Your task to perform on an android device: toggle improve location accuracy Image 0: 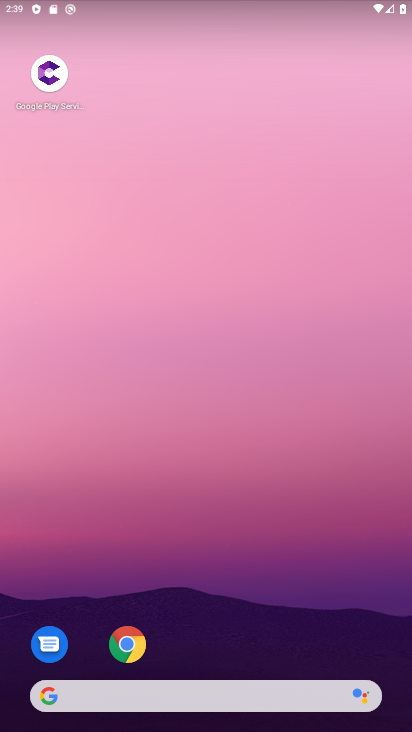
Step 0: drag from (158, 668) to (290, 136)
Your task to perform on an android device: toggle improve location accuracy Image 1: 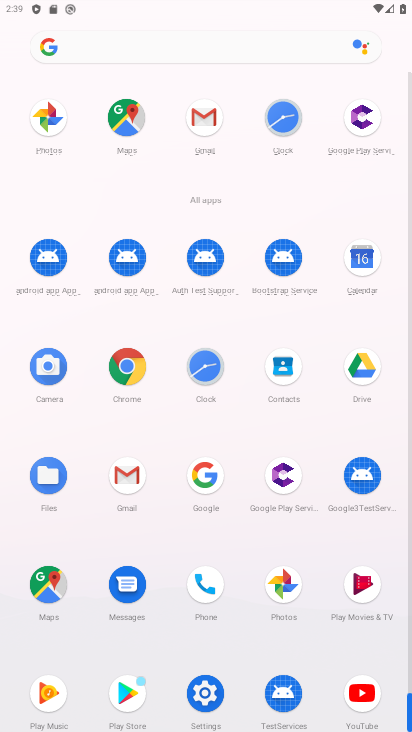
Step 1: click (216, 691)
Your task to perform on an android device: toggle improve location accuracy Image 2: 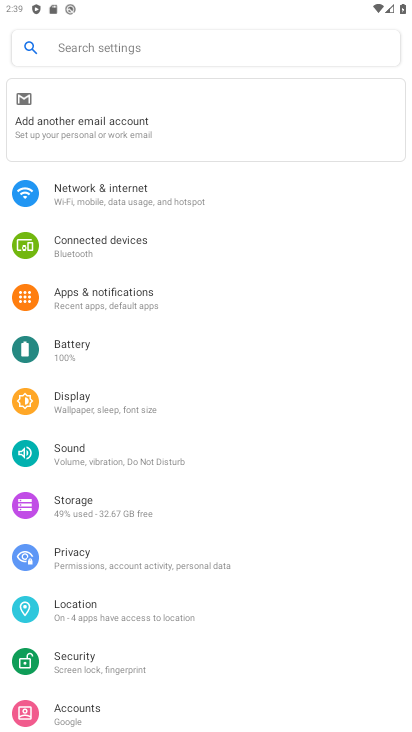
Step 2: click (119, 606)
Your task to perform on an android device: toggle improve location accuracy Image 3: 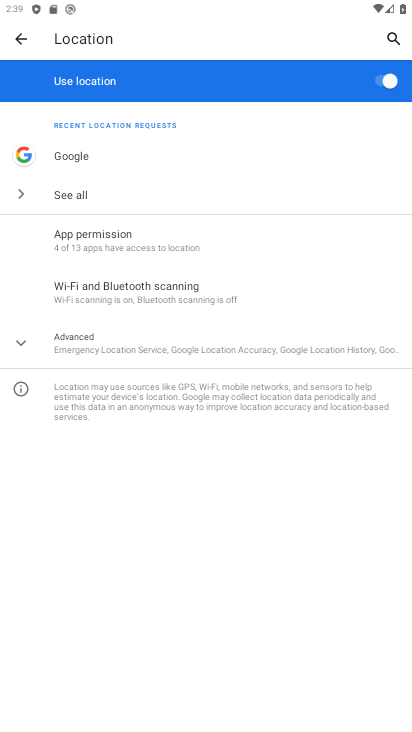
Step 3: click (179, 352)
Your task to perform on an android device: toggle improve location accuracy Image 4: 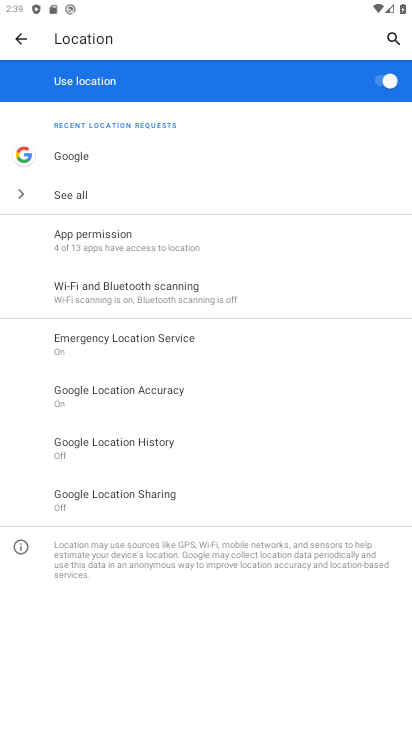
Step 4: click (201, 402)
Your task to perform on an android device: toggle improve location accuracy Image 5: 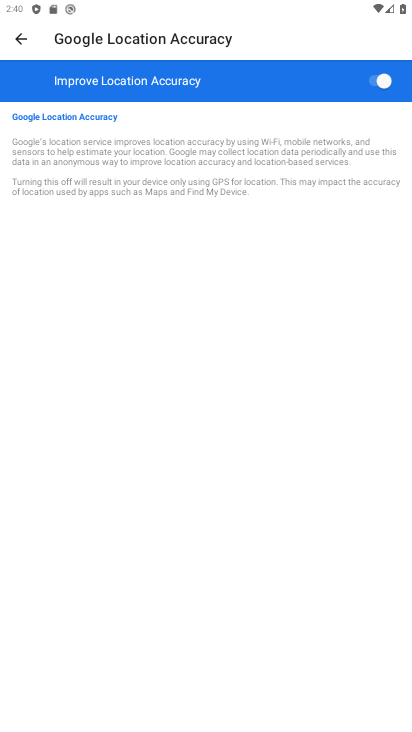
Step 5: click (379, 81)
Your task to perform on an android device: toggle improve location accuracy Image 6: 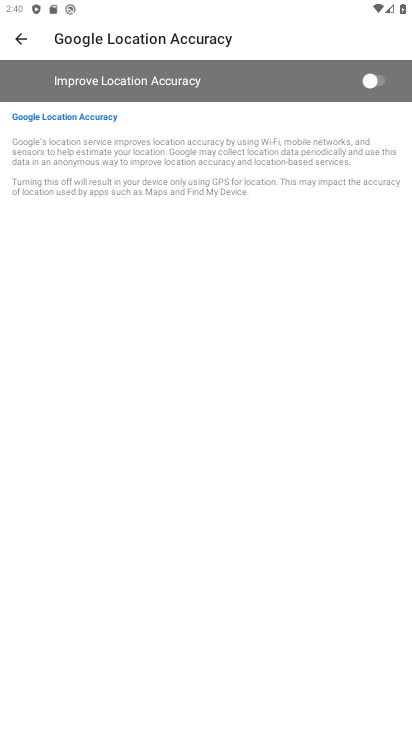
Step 6: task complete